Your task to perform on an android device: turn off location history Image 0: 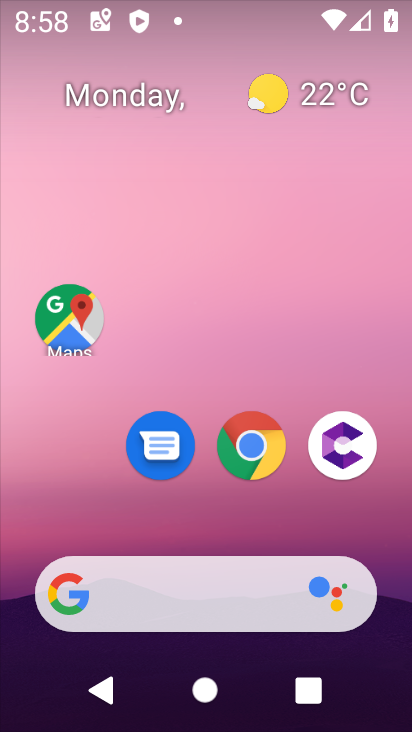
Step 0: drag from (199, 337) to (175, 79)
Your task to perform on an android device: turn off location history Image 1: 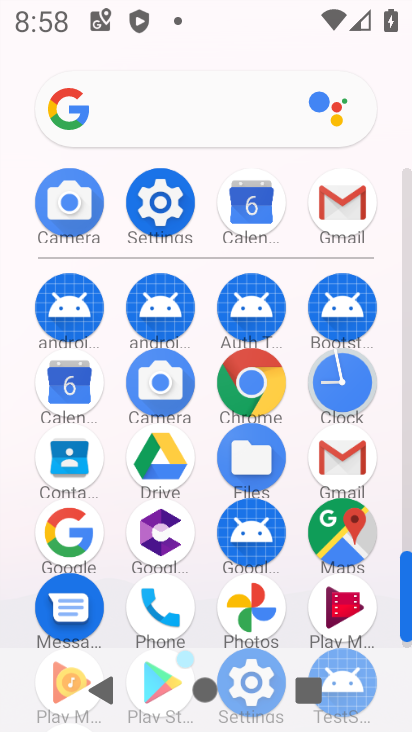
Step 1: click (177, 206)
Your task to perform on an android device: turn off location history Image 2: 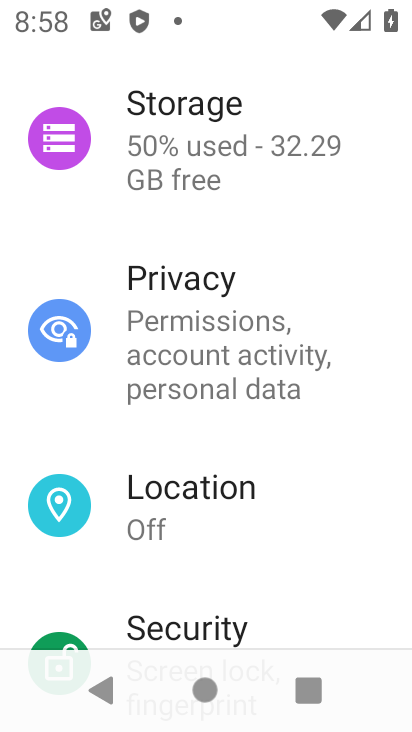
Step 2: click (172, 500)
Your task to perform on an android device: turn off location history Image 3: 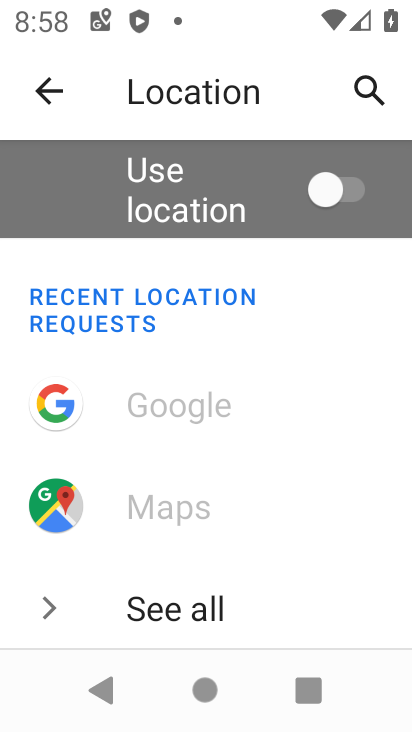
Step 3: task complete